Your task to perform on an android device: read, delete, or share a saved page in the chrome app Image 0: 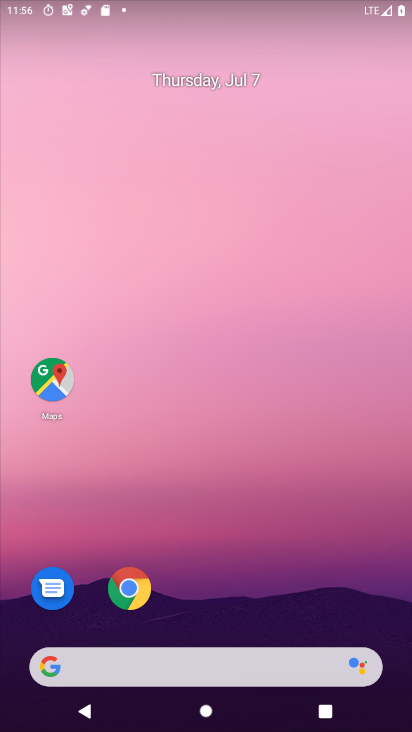
Step 0: press home button
Your task to perform on an android device: read, delete, or share a saved page in the chrome app Image 1: 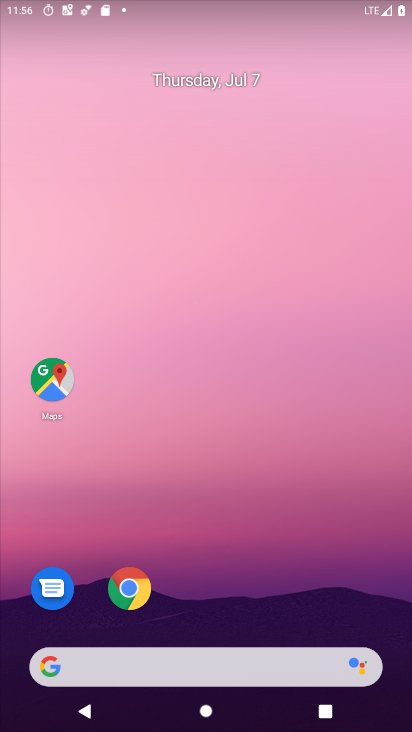
Step 1: click (127, 587)
Your task to perform on an android device: read, delete, or share a saved page in the chrome app Image 2: 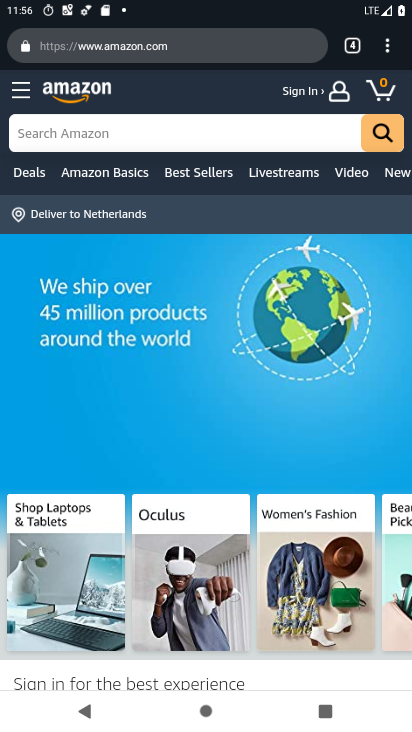
Step 2: drag from (391, 52) to (221, 301)
Your task to perform on an android device: read, delete, or share a saved page in the chrome app Image 3: 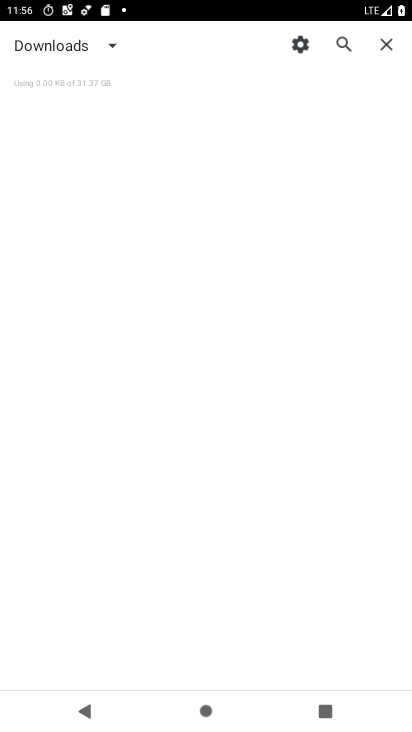
Step 3: click (107, 41)
Your task to perform on an android device: read, delete, or share a saved page in the chrome app Image 4: 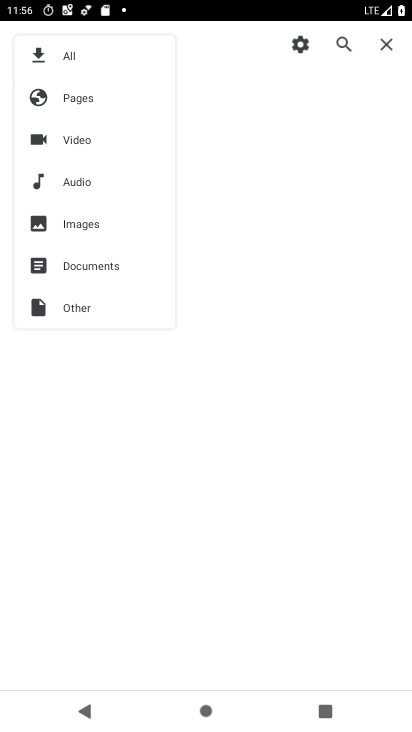
Step 4: click (85, 98)
Your task to perform on an android device: read, delete, or share a saved page in the chrome app Image 5: 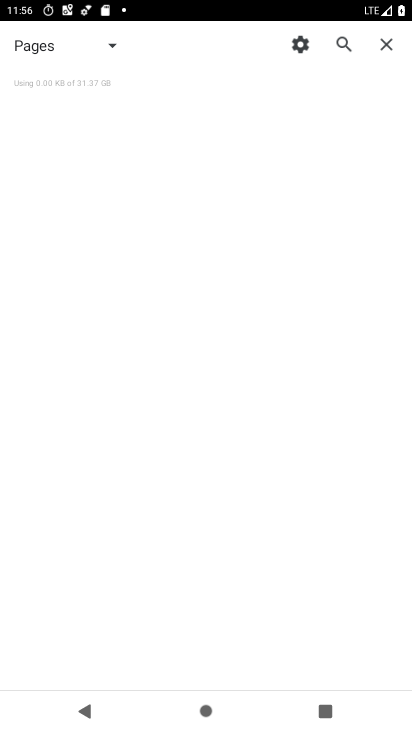
Step 5: task complete